Your task to perform on an android device: show emergency info Image 0: 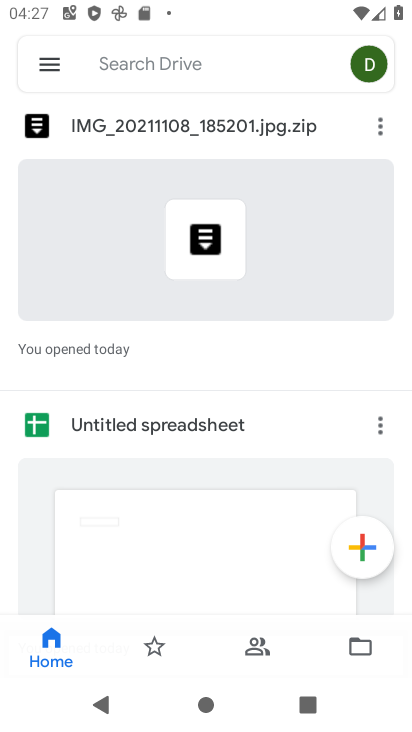
Step 0: press home button
Your task to perform on an android device: show emergency info Image 1: 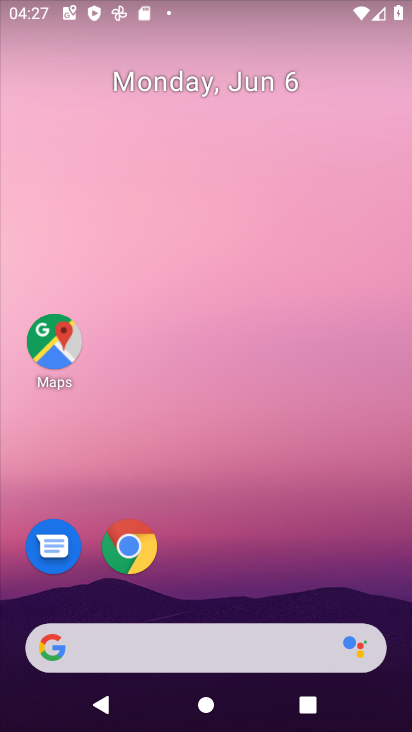
Step 1: drag from (285, 577) to (292, 137)
Your task to perform on an android device: show emergency info Image 2: 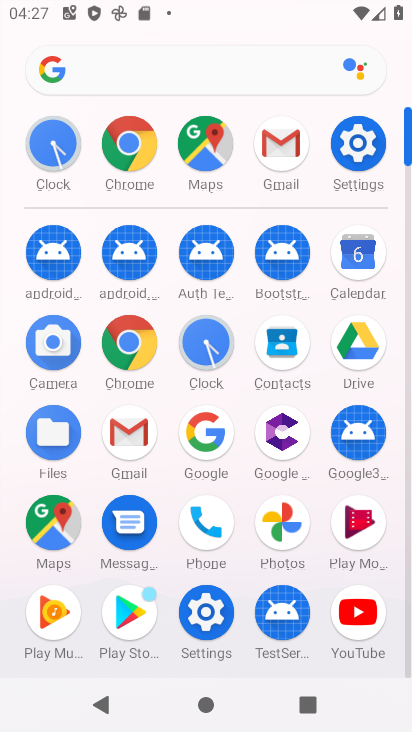
Step 2: click (360, 136)
Your task to perform on an android device: show emergency info Image 3: 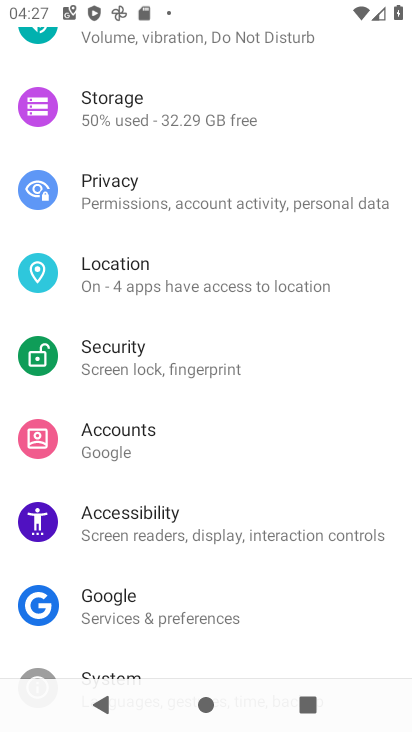
Step 3: drag from (221, 617) to (253, 355)
Your task to perform on an android device: show emergency info Image 4: 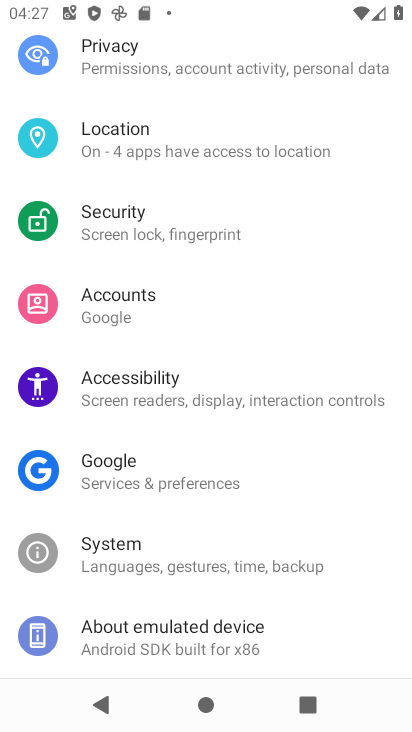
Step 4: click (214, 620)
Your task to perform on an android device: show emergency info Image 5: 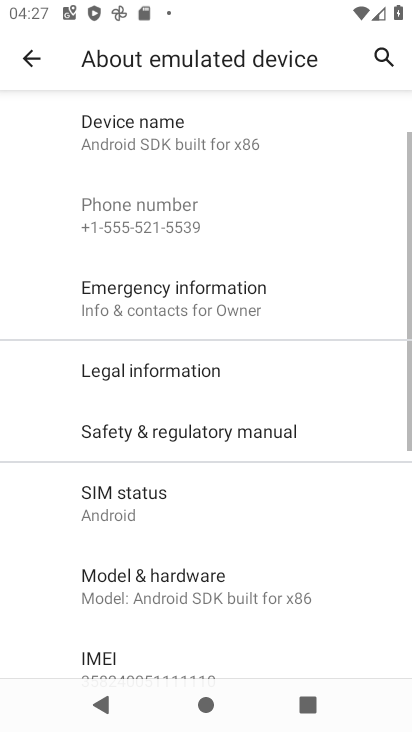
Step 5: click (239, 324)
Your task to perform on an android device: show emergency info Image 6: 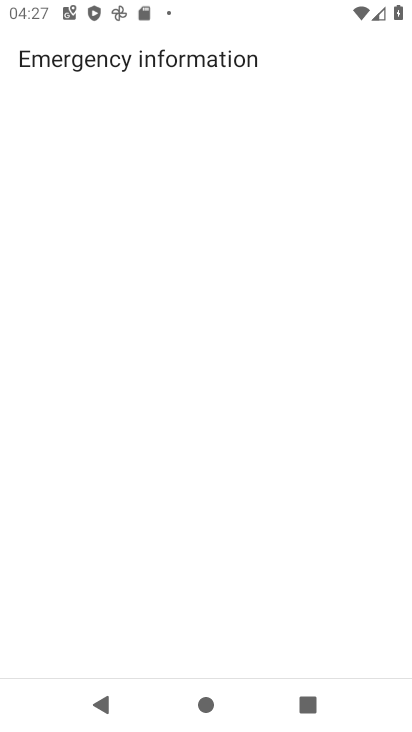
Step 6: task complete